Your task to perform on an android device: Check the news Image 0: 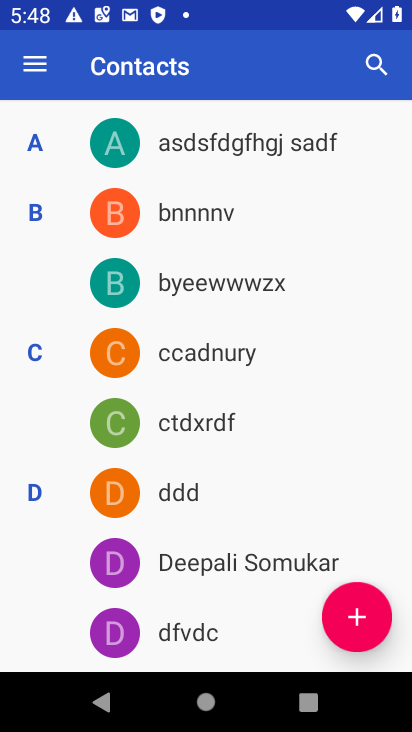
Step 0: press home button
Your task to perform on an android device: Check the news Image 1: 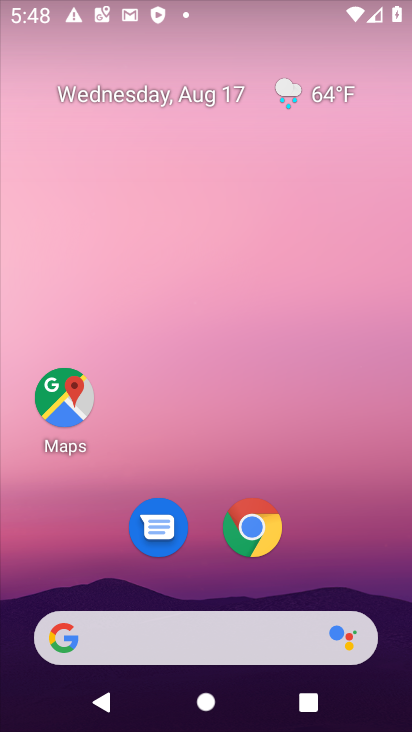
Step 1: drag from (134, 603) to (135, 194)
Your task to perform on an android device: Check the news Image 2: 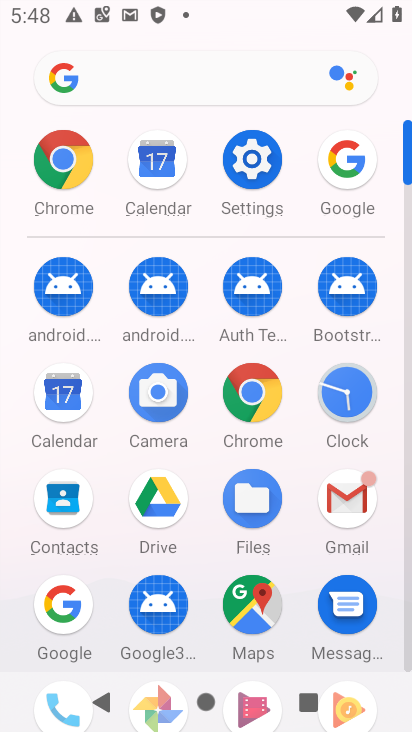
Step 2: click (26, 605)
Your task to perform on an android device: Check the news Image 3: 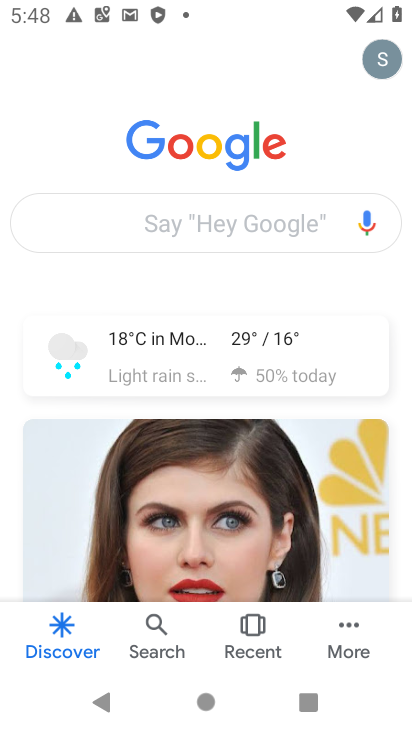
Step 3: click (186, 221)
Your task to perform on an android device: Check the news Image 4: 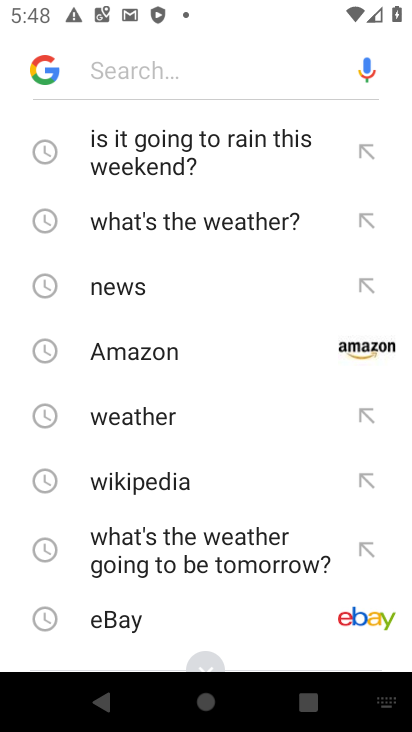
Step 4: click (116, 267)
Your task to perform on an android device: Check the news Image 5: 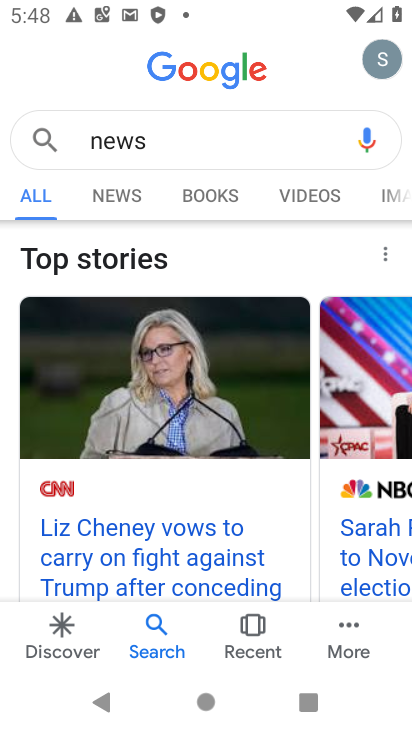
Step 5: drag from (136, 533) to (147, 254)
Your task to perform on an android device: Check the news Image 6: 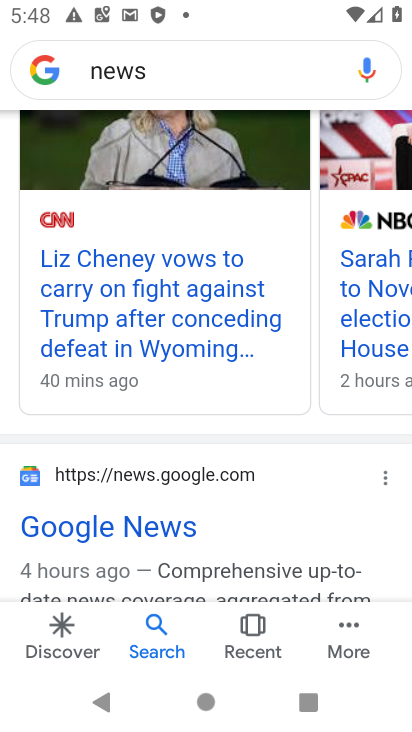
Step 6: click (120, 522)
Your task to perform on an android device: Check the news Image 7: 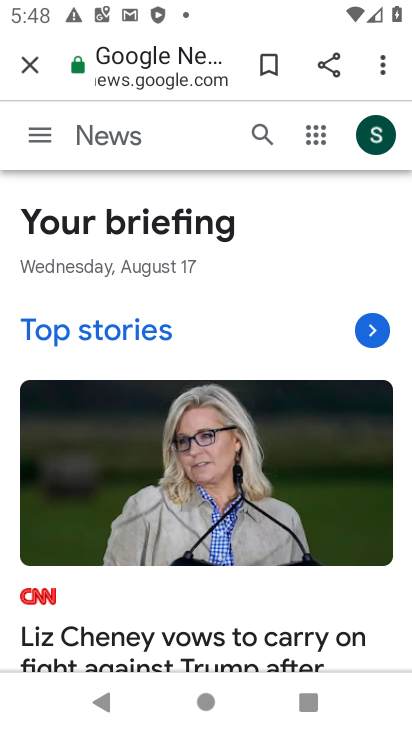
Step 7: task complete